Your task to perform on an android device: Open Reddit.com Image 0: 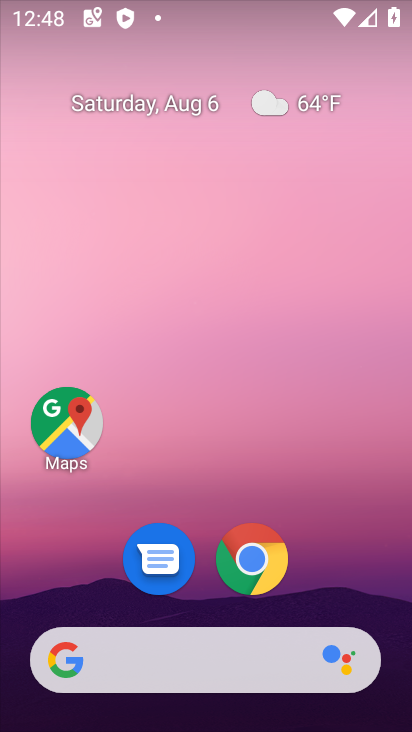
Step 0: click (174, 653)
Your task to perform on an android device: Open Reddit.com Image 1: 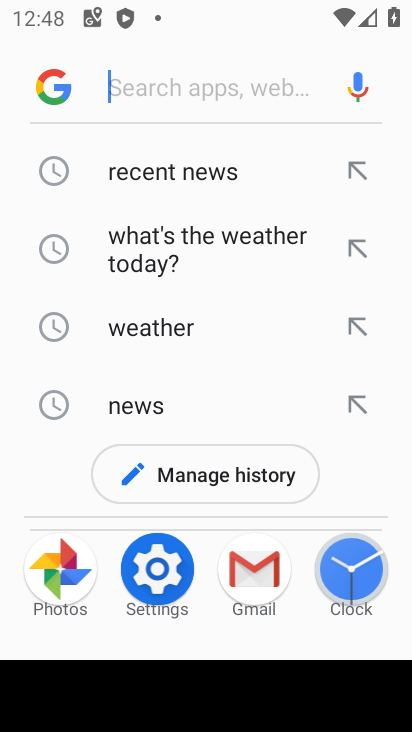
Step 1: type "reddit.com"
Your task to perform on an android device: Open Reddit.com Image 2: 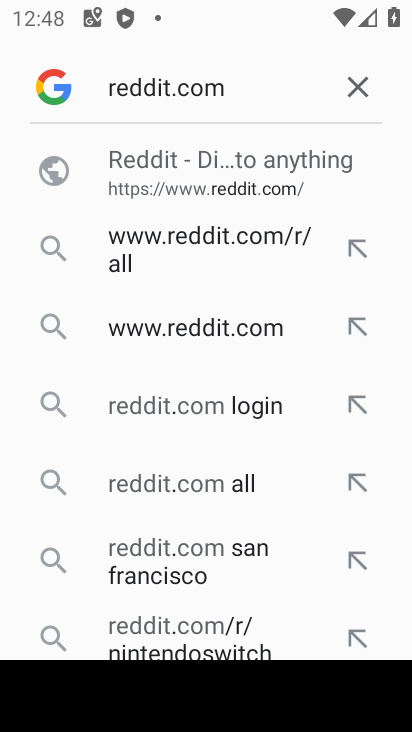
Step 2: click (290, 165)
Your task to perform on an android device: Open Reddit.com Image 3: 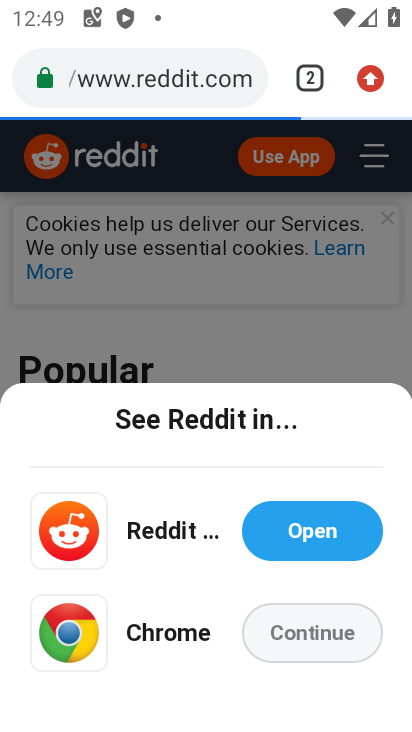
Step 3: task complete